Your task to perform on an android device: What is the news today? Image 0: 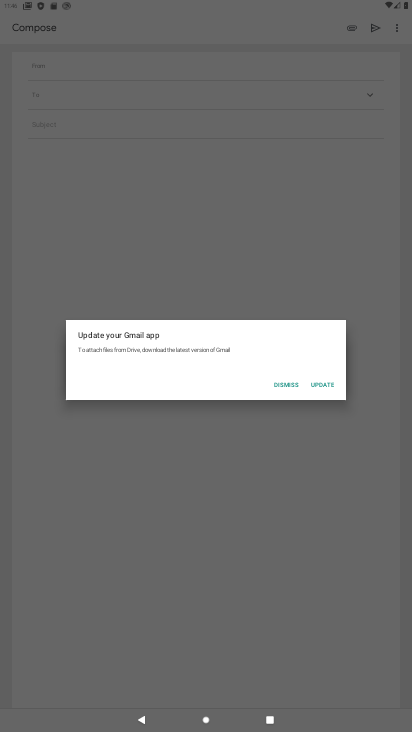
Step 0: press home button
Your task to perform on an android device: What is the news today? Image 1: 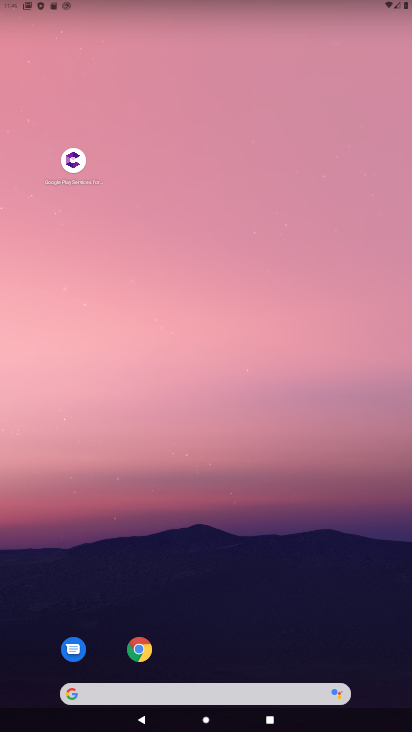
Step 1: drag from (200, 664) to (165, 98)
Your task to perform on an android device: What is the news today? Image 2: 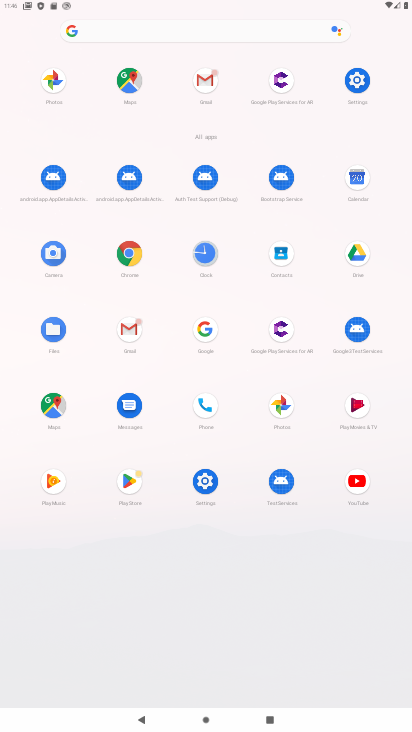
Step 2: click (205, 330)
Your task to perform on an android device: What is the news today? Image 3: 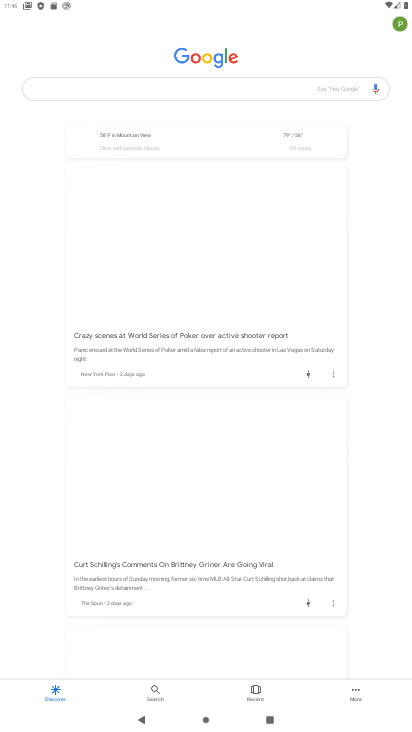
Step 3: click (161, 93)
Your task to perform on an android device: What is the news today? Image 4: 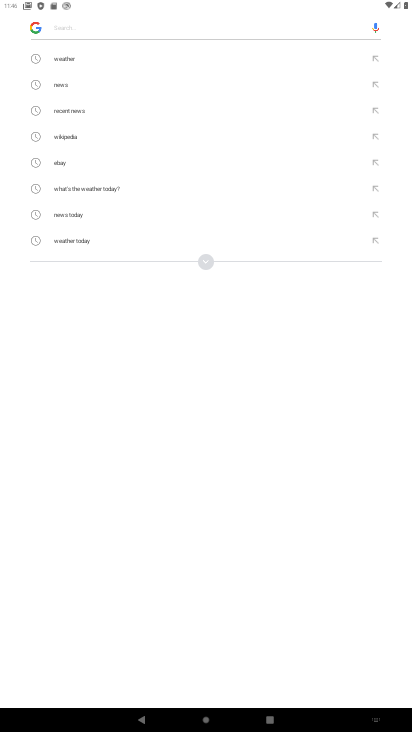
Step 4: click (61, 89)
Your task to perform on an android device: What is the news today? Image 5: 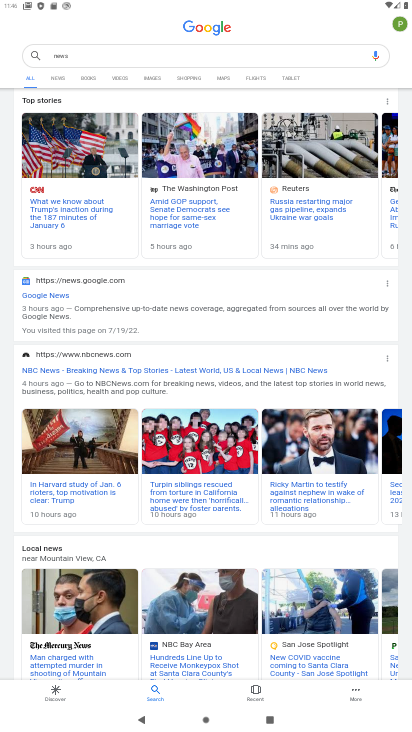
Step 5: task complete